Your task to perform on an android device: open sync settings in chrome Image 0: 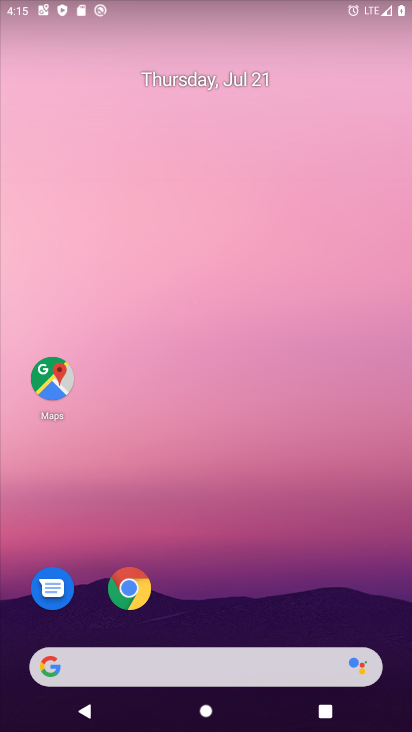
Step 0: drag from (223, 568) to (196, 77)
Your task to perform on an android device: open sync settings in chrome Image 1: 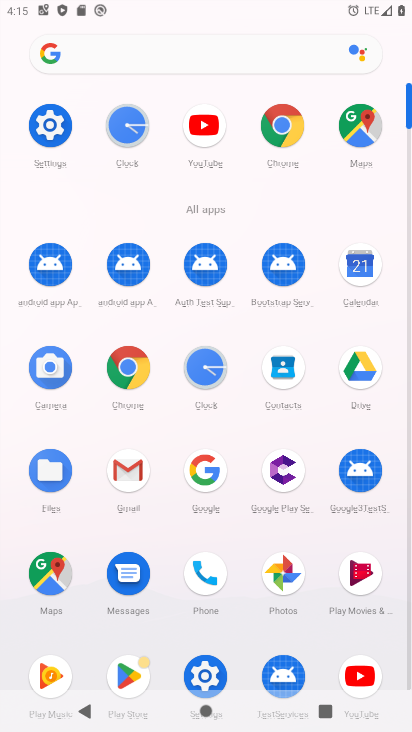
Step 1: click (131, 365)
Your task to perform on an android device: open sync settings in chrome Image 2: 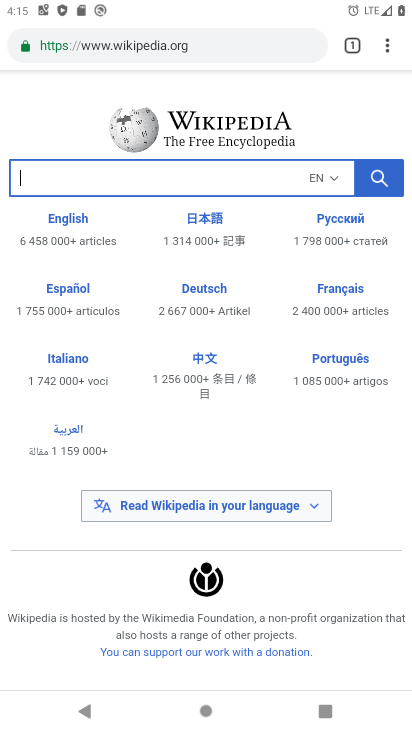
Step 2: drag from (388, 44) to (228, 508)
Your task to perform on an android device: open sync settings in chrome Image 3: 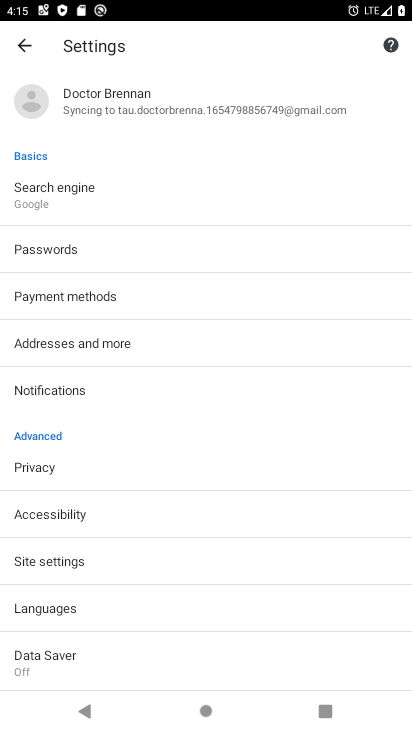
Step 3: click (22, 95)
Your task to perform on an android device: open sync settings in chrome Image 4: 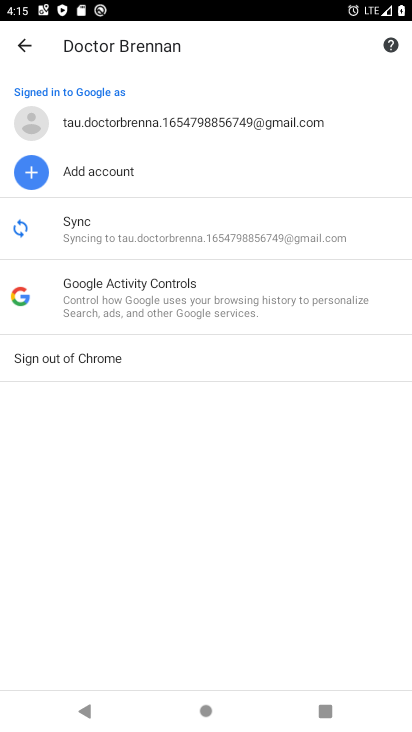
Step 4: click (105, 228)
Your task to perform on an android device: open sync settings in chrome Image 5: 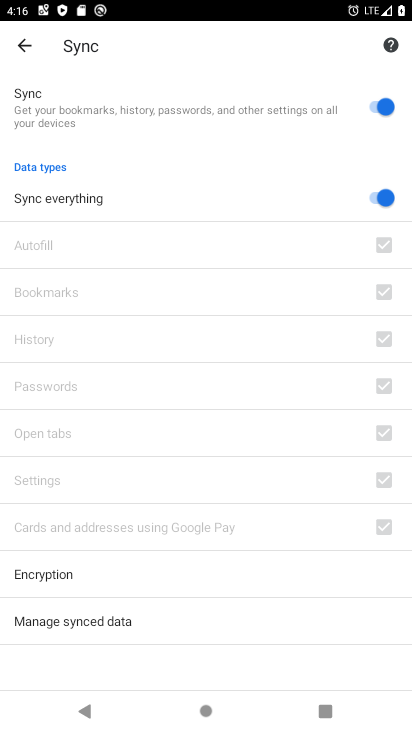
Step 5: task complete